Your task to perform on an android device: Toggle the flashlight Image 0: 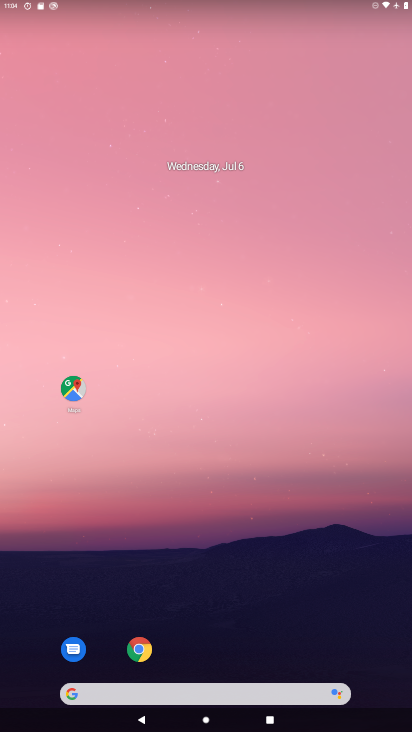
Step 0: drag from (394, 719) to (320, 202)
Your task to perform on an android device: Toggle the flashlight Image 1: 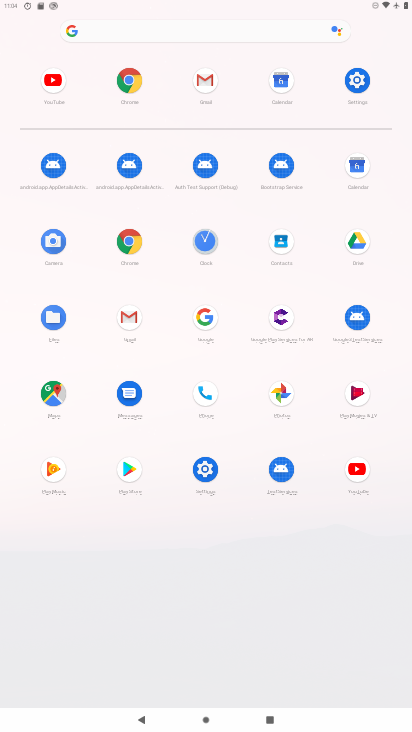
Step 1: click (352, 83)
Your task to perform on an android device: Toggle the flashlight Image 2: 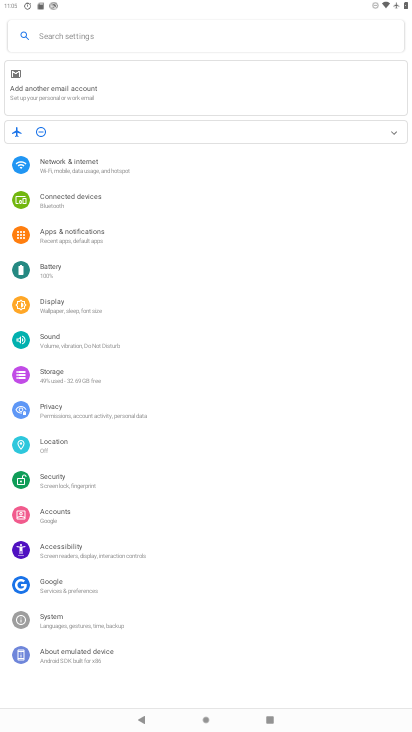
Step 2: click (47, 304)
Your task to perform on an android device: Toggle the flashlight Image 3: 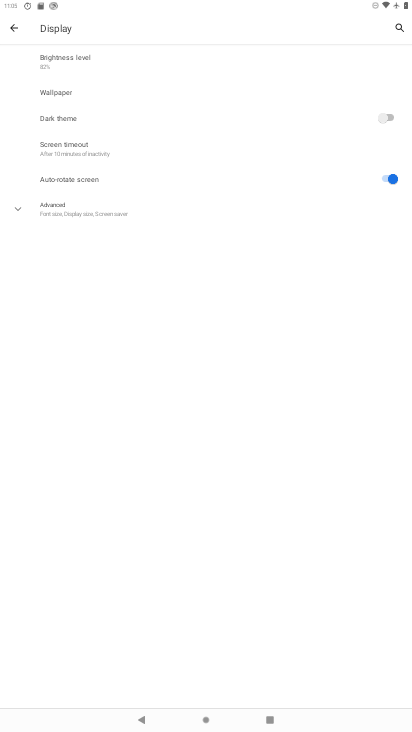
Step 3: task complete